Your task to perform on an android device: check storage Image 0: 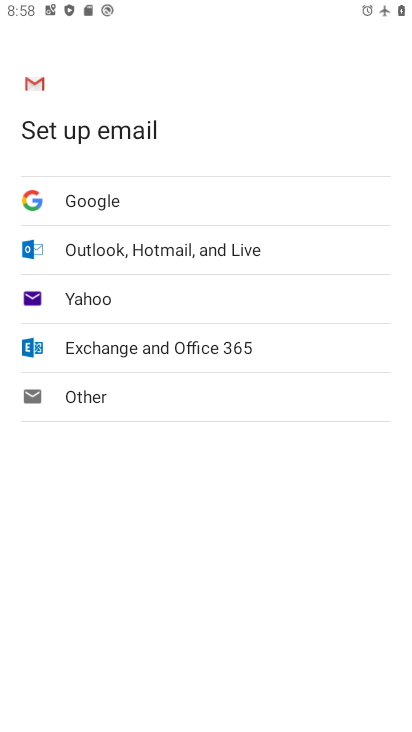
Step 0: press home button
Your task to perform on an android device: check storage Image 1: 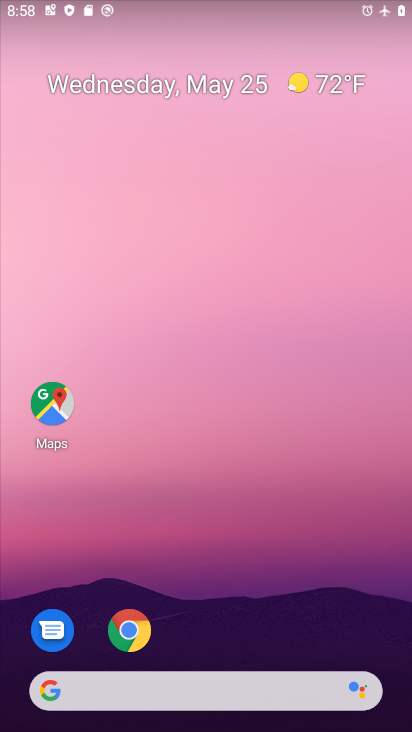
Step 1: drag from (227, 635) to (227, 156)
Your task to perform on an android device: check storage Image 2: 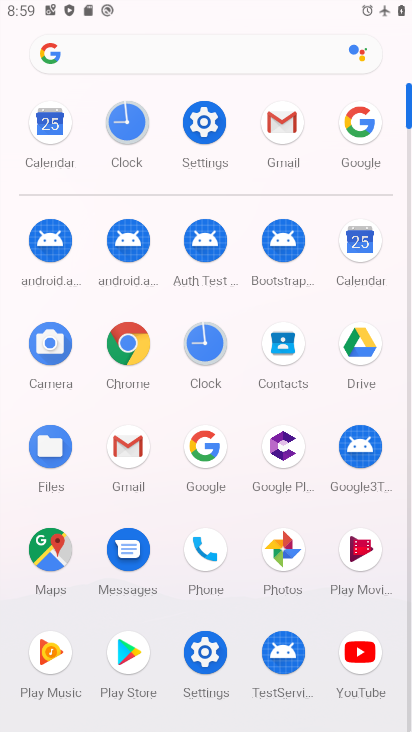
Step 2: click (204, 119)
Your task to perform on an android device: check storage Image 3: 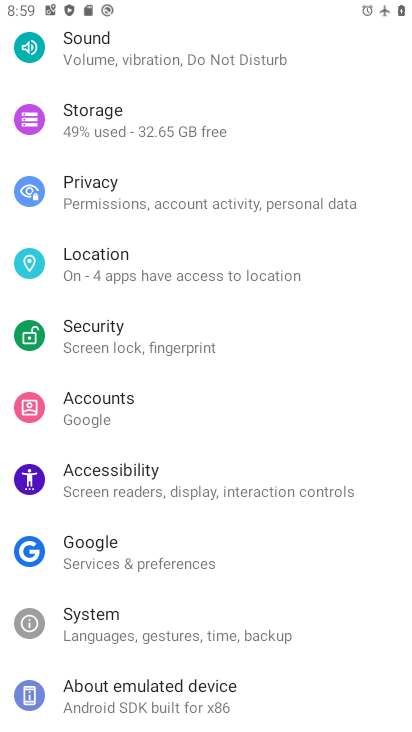
Step 3: click (156, 134)
Your task to perform on an android device: check storage Image 4: 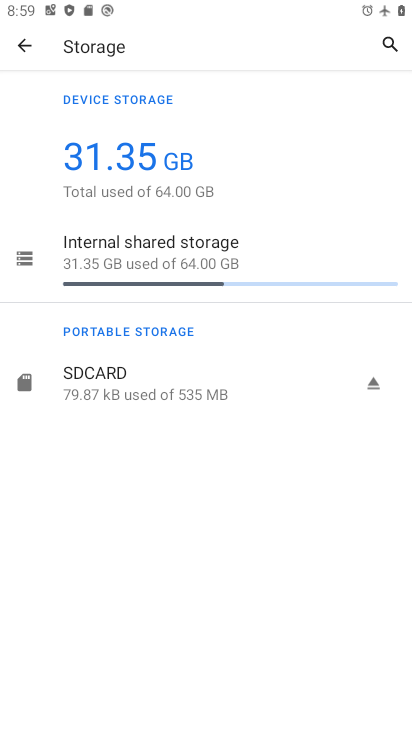
Step 4: task complete